Your task to perform on an android device: change the clock style Image 0: 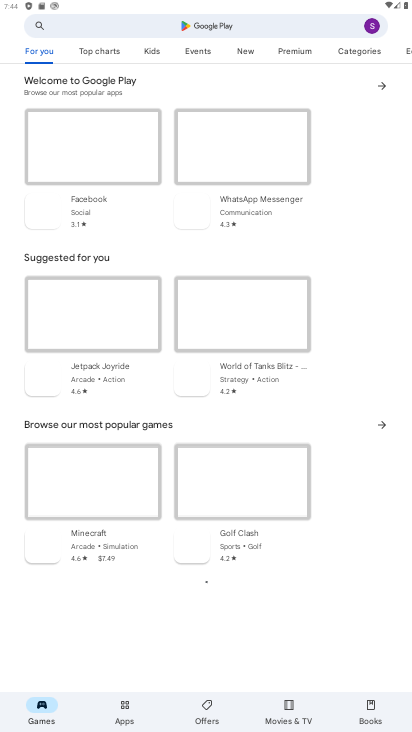
Step 0: press home button
Your task to perform on an android device: change the clock style Image 1: 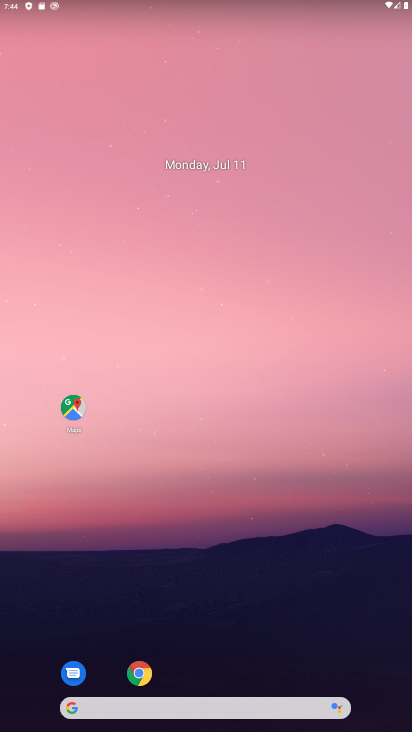
Step 1: drag from (292, 582) to (265, 269)
Your task to perform on an android device: change the clock style Image 2: 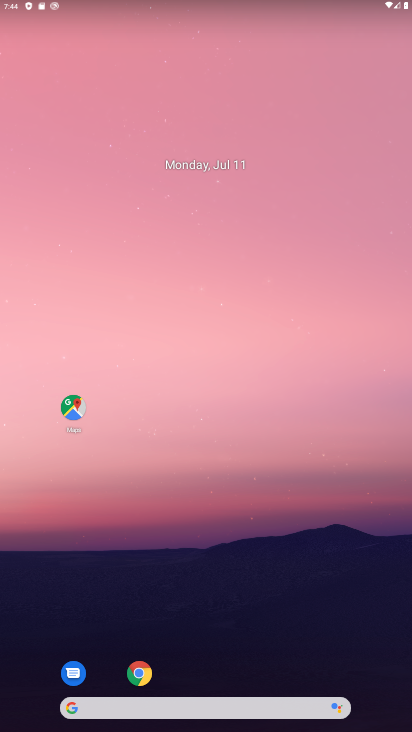
Step 2: drag from (291, 608) to (227, 72)
Your task to perform on an android device: change the clock style Image 3: 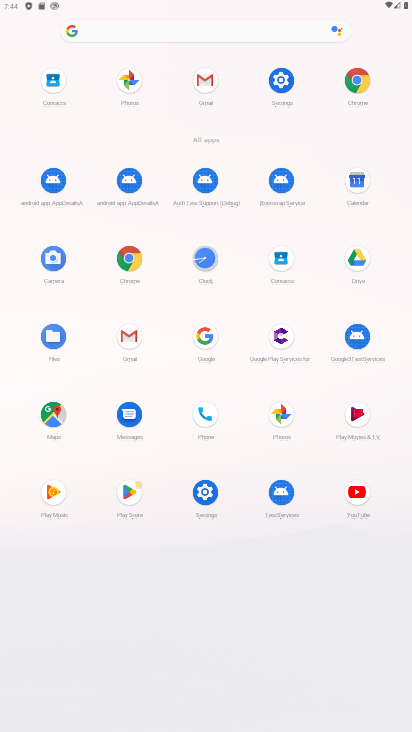
Step 3: click (199, 256)
Your task to perform on an android device: change the clock style Image 4: 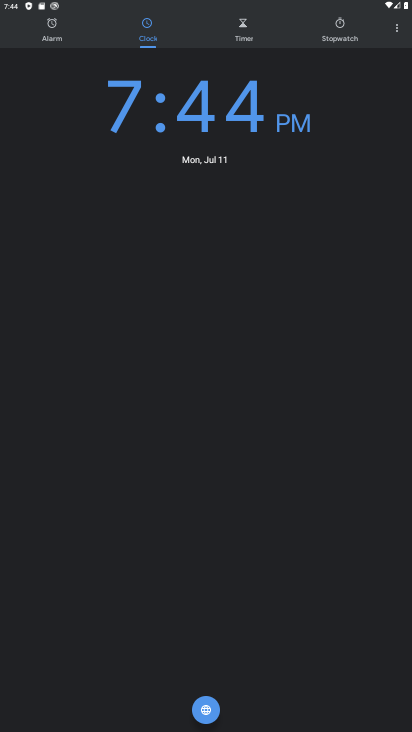
Step 4: click (402, 26)
Your task to perform on an android device: change the clock style Image 5: 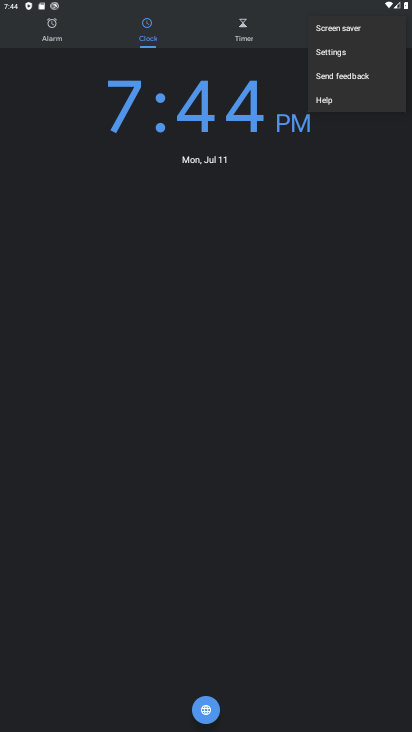
Step 5: click (326, 55)
Your task to perform on an android device: change the clock style Image 6: 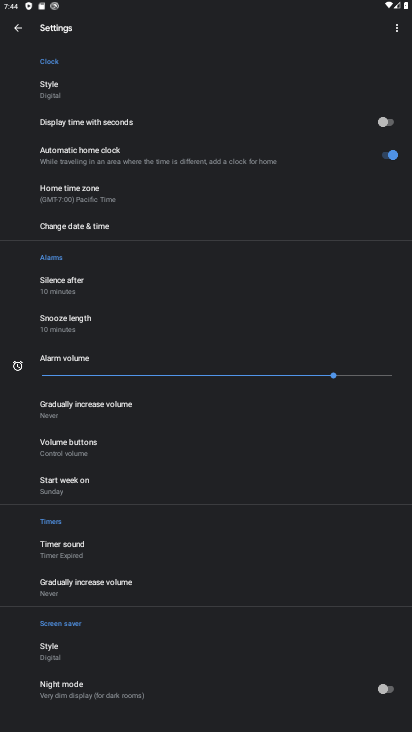
Step 6: click (48, 96)
Your task to perform on an android device: change the clock style Image 7: 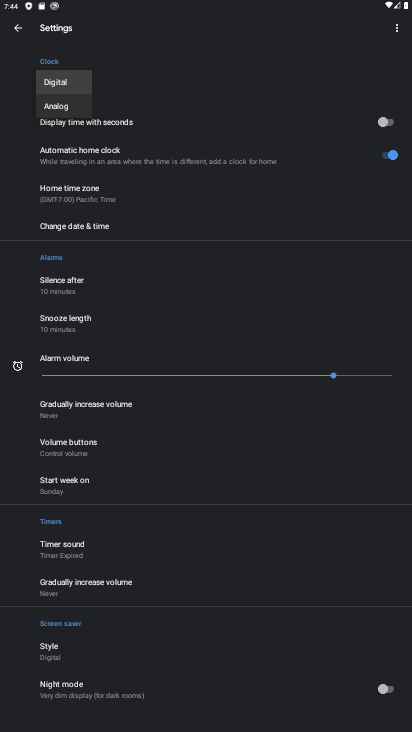
Step 7: click (67, 115)
Your task to perform on an android device: change the clock style Image 8: 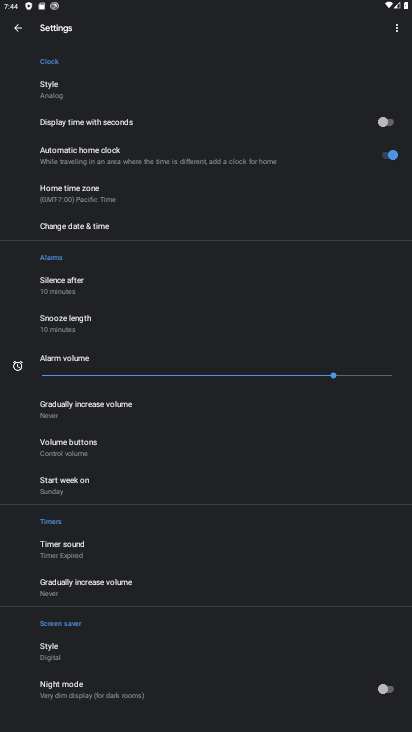
Step 8: task complete